Your task to perform on an android device: Search for seafood restaurants on Google Maps Image 0: 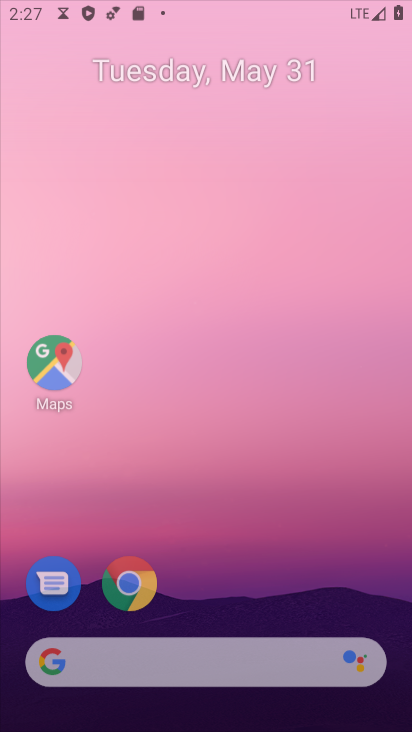
Step 0: press home button
Your task to perform on an android device: Search for seafood restaurants on Google Maps Image 1: 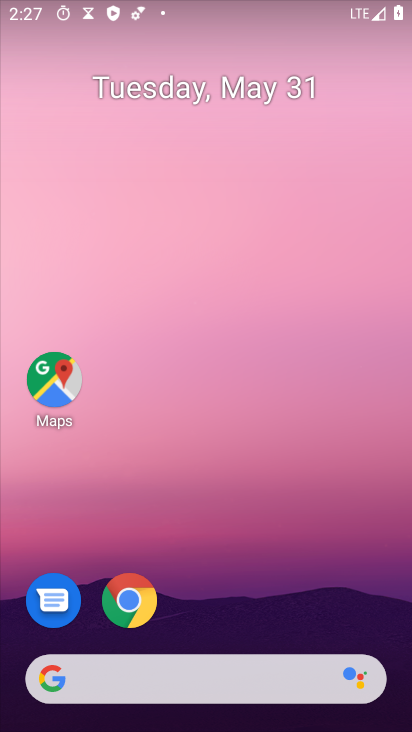
Step 1: click (46, 380)
Your task to perform on an android device: Search for seafood restaurants on Google Maps Image 2: 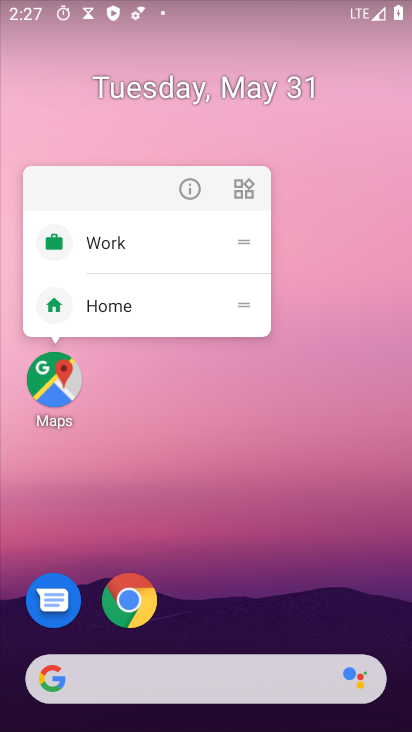
Step 2: click (54, 373)
Your task to perform on an android device: Search for seafood restaurants on Google Maps Image 3: 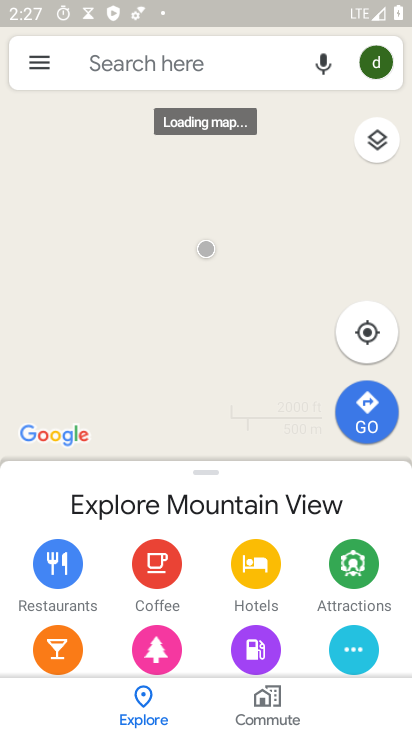
Step 3: click (123, 57)
Your task to perform on an android device: Search for seafood restaurants on Google Maps Image 4: 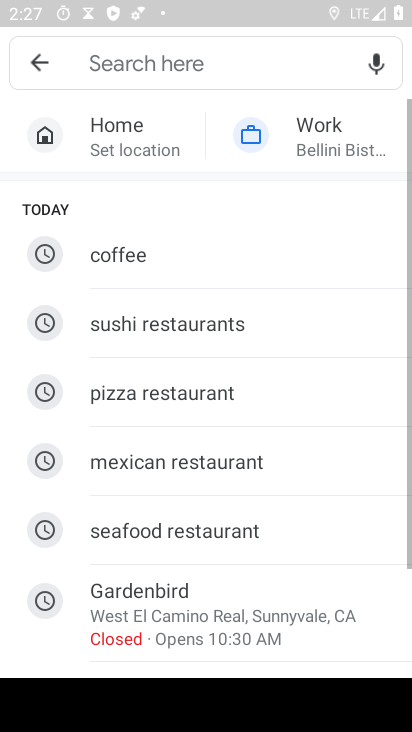
Step 4: click (177, 539)
Your task to perform on an android device: Search for seafood restaurants on Google Maps Image 5: 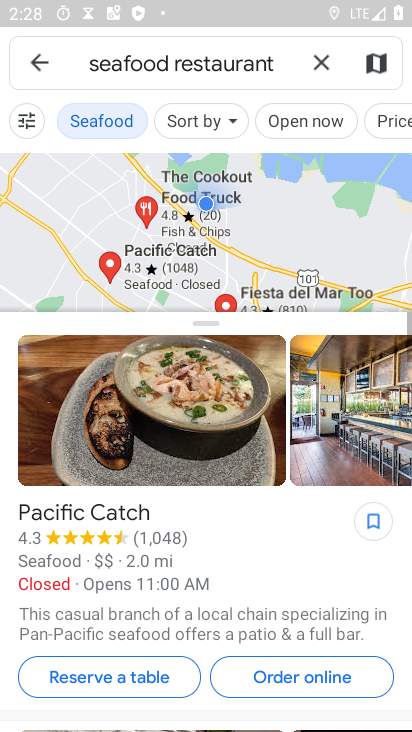
Step 5: drag from (203, 574) to (214, 118)
Your task to perform on an android device: Search for seafood restaurants on Google Maps Image 6: 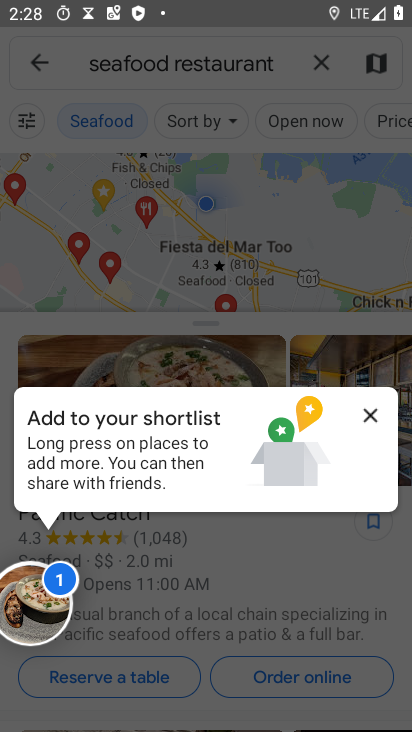
Step 6: click (366, 410)
Your task to perform on an android device: Search for seafood restaurants on Google Maps Image 7: 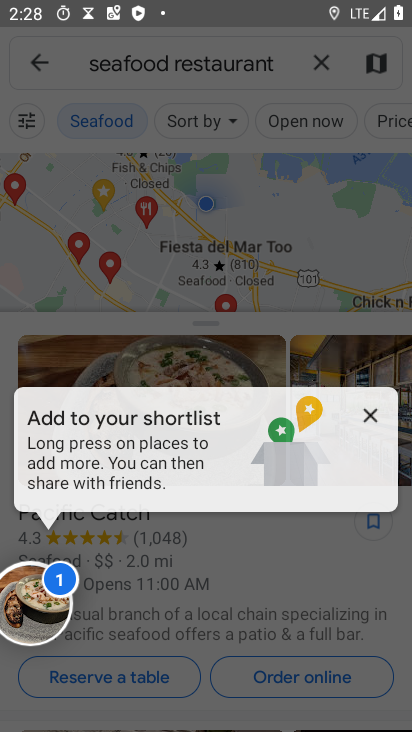
Step 7: drag from (31, 598) to (244, 725)
Your task to perform on an android device: Search for seafood restaurants on Google Maps Image 8: 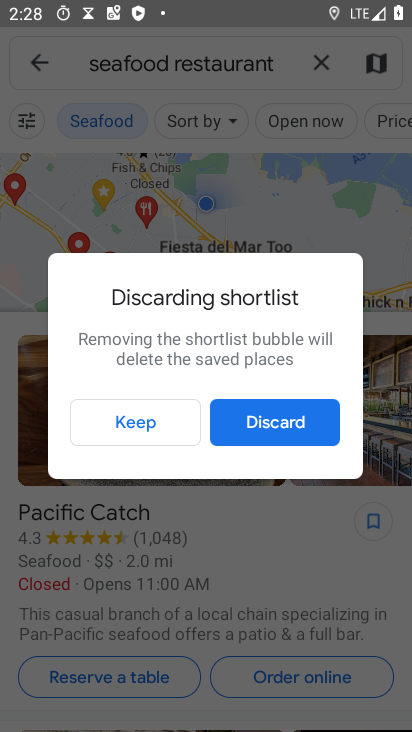
Step 8: click (268, 420)
Your task to perform on an android device: Search for seafood restaurants on Google Maps Image 9: 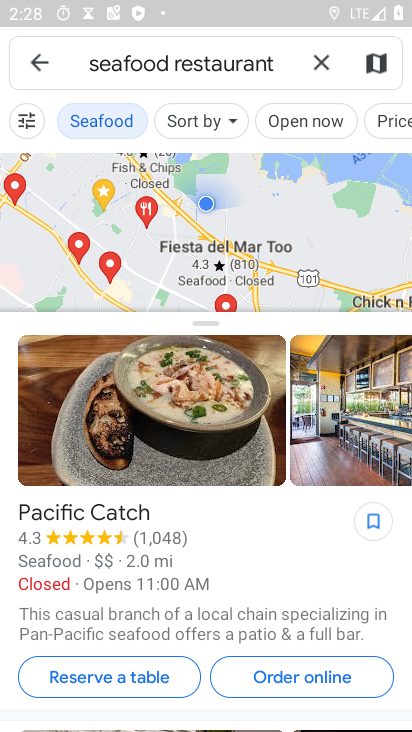
Step 9: task complete